Your task to perform on an android device: toggle show notifications on the lock screen Image 0: 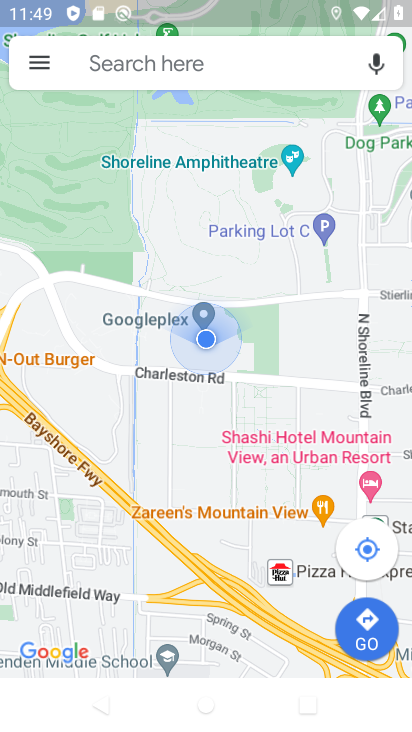
Step 0: press home button
Your task to perform on an android device: toggle show notifications on the lock screen Image 1: 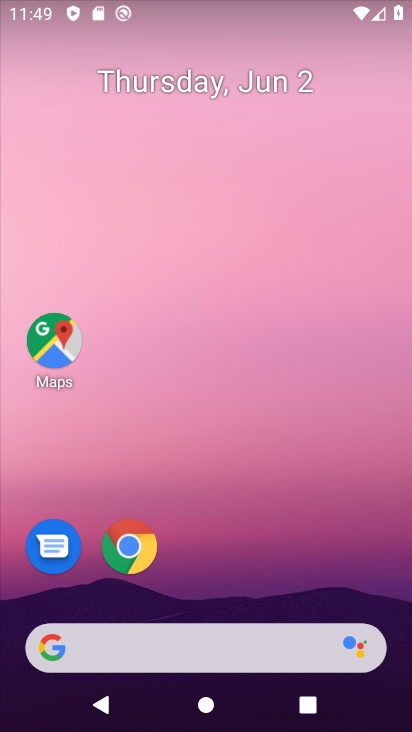
Step 1: drag from (207, 610) to (297, 128)
Your task to perform on an android device: toggle show notifications on the lock screen Image 2: 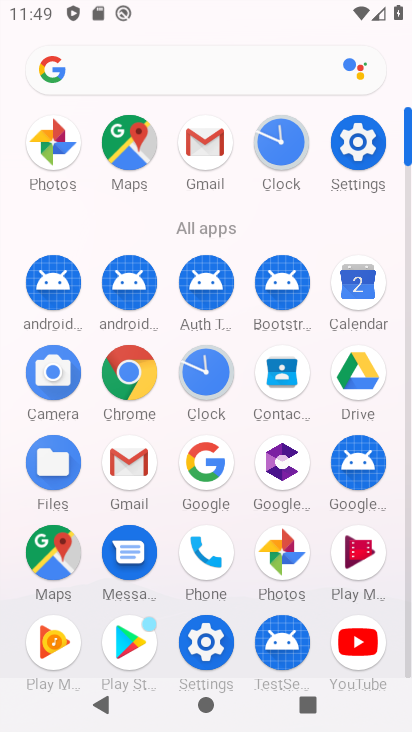
Step 2: drag from (185, 681) to (269, 410)
Your task to perform on an android device: toggle show notifications on the lock screen Image 3: 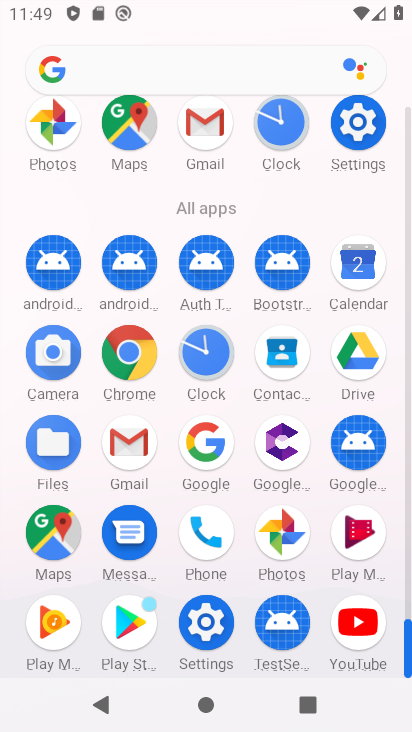
Step 3: click (204, 620)
Your task to perform on an android device: toggle show notifications on the lock screen Image 4: 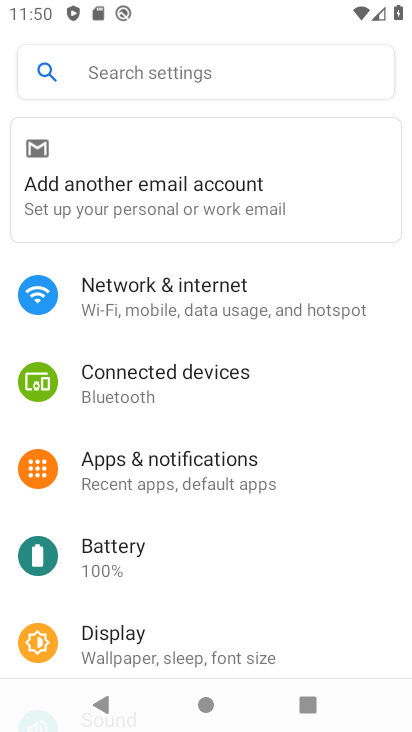
Step 4: drag from (226, 663) to (273, 438)
Your task to perform on an android device: toggle show notifications on the lock screen Image 5: 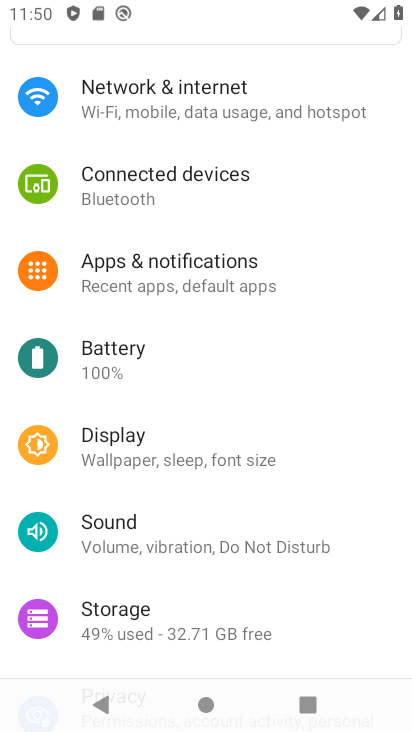
Step 5: click (242, 287)
Your task to perform on an android device: toggle show notifications on the lock screen Image 6: 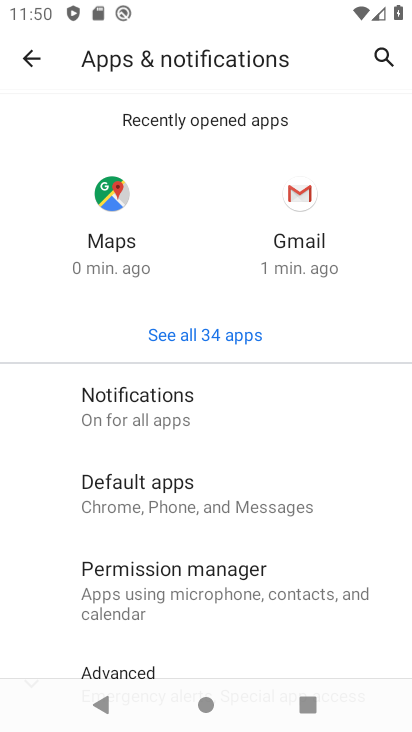
Step 6: click (217, 425)
Your task to perform on an android device: toggle show notifications on the lock screen Image 7: 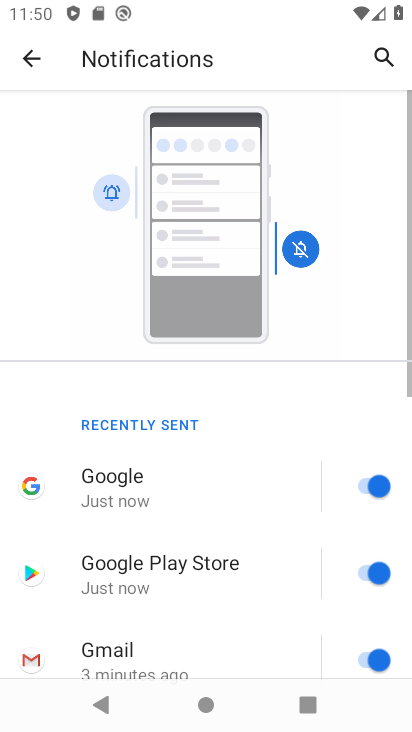
Step 7: drag from (222, 584) to (318, 334)
Your task to perform on an android device: toggle show notifications on the lock screen Image 8: 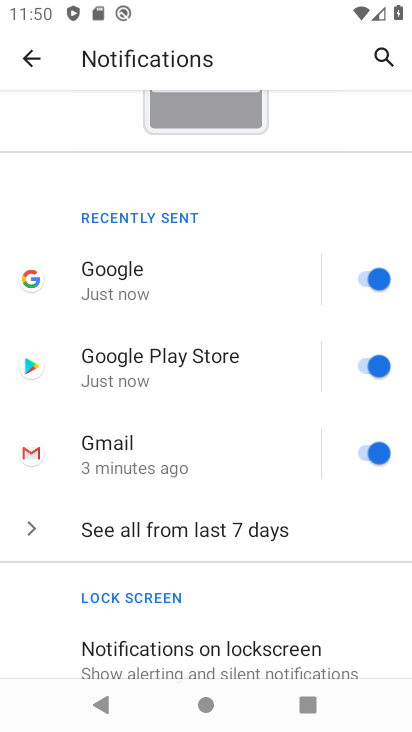
Step 8: click (169, 659)
Your task to perform on an android device: toggle show notifications on the lock screen Image 9: 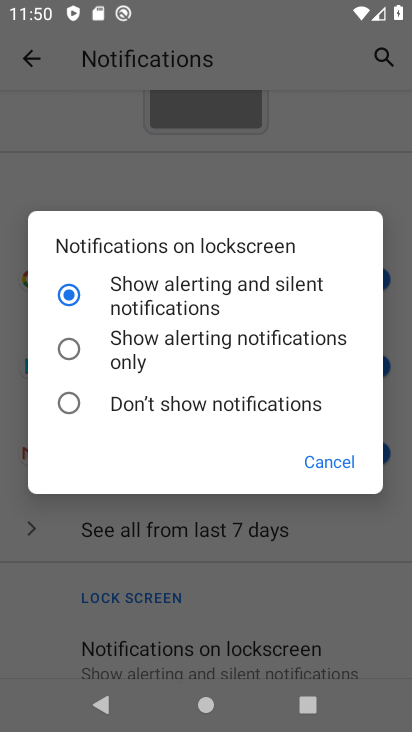
Step 9: click (186, 408)
Your task to perform on an android device: toggle show notifications on the lock screen Image 10: 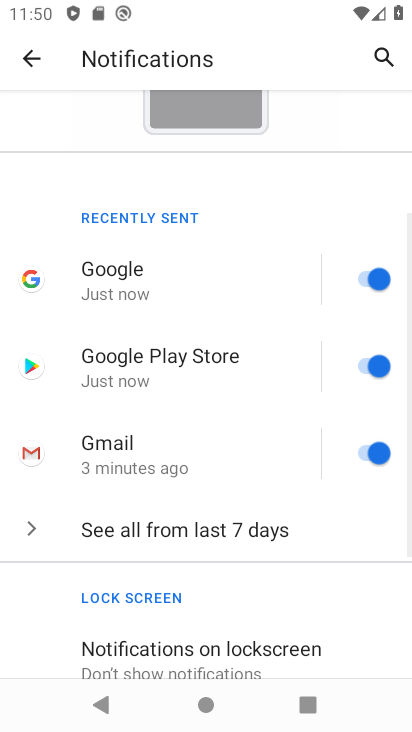
Step 10: task complete